Your task to perform on an android device: Open Yahoo.com Image 0: 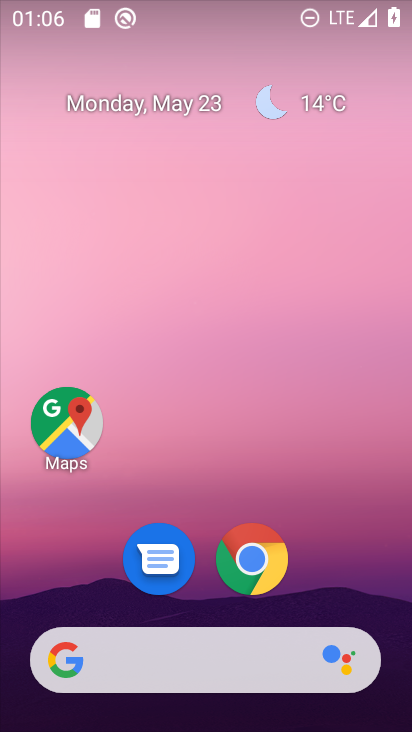
Step 0: click (262, 554)
Your task to perform on an android device: Open Yahoo.com Image 1: 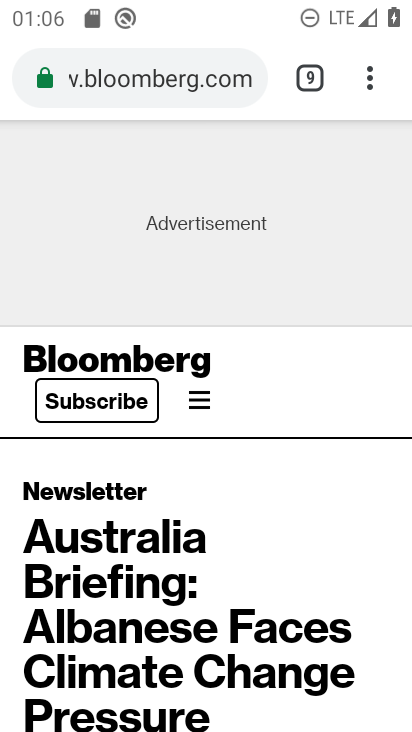
Step 1: click (127, 86)
Your task to perform on an android device: Open Yahoo.com Image 2: 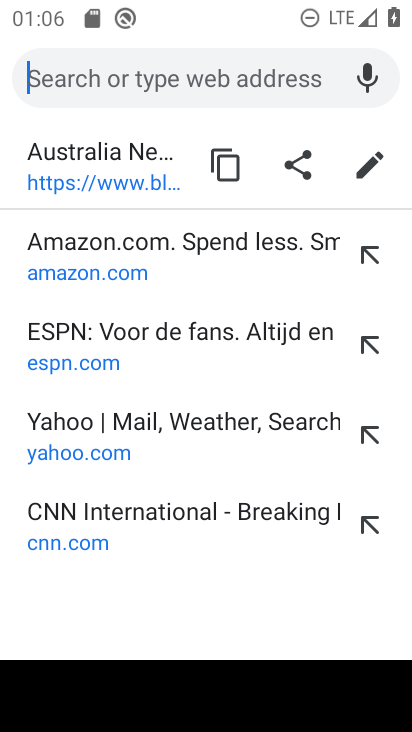
Step 2: click (50, 432)
Your task to perform on an android device: Open Yahoo.com Image 3: 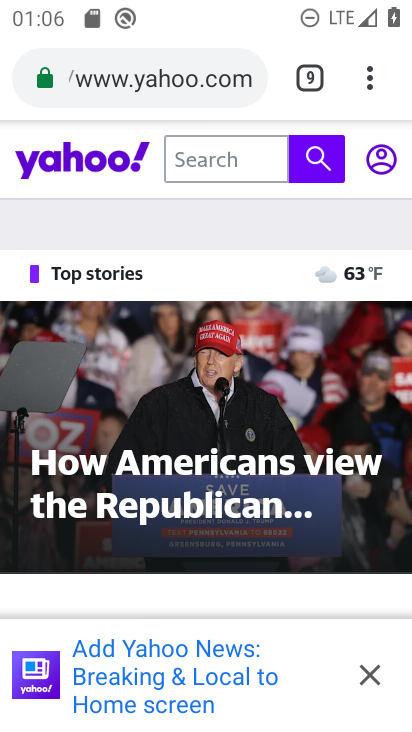
Step 3: task complete